Your task to perform on an android device: open app "Google Keep" (install if not already installed) Image 0: 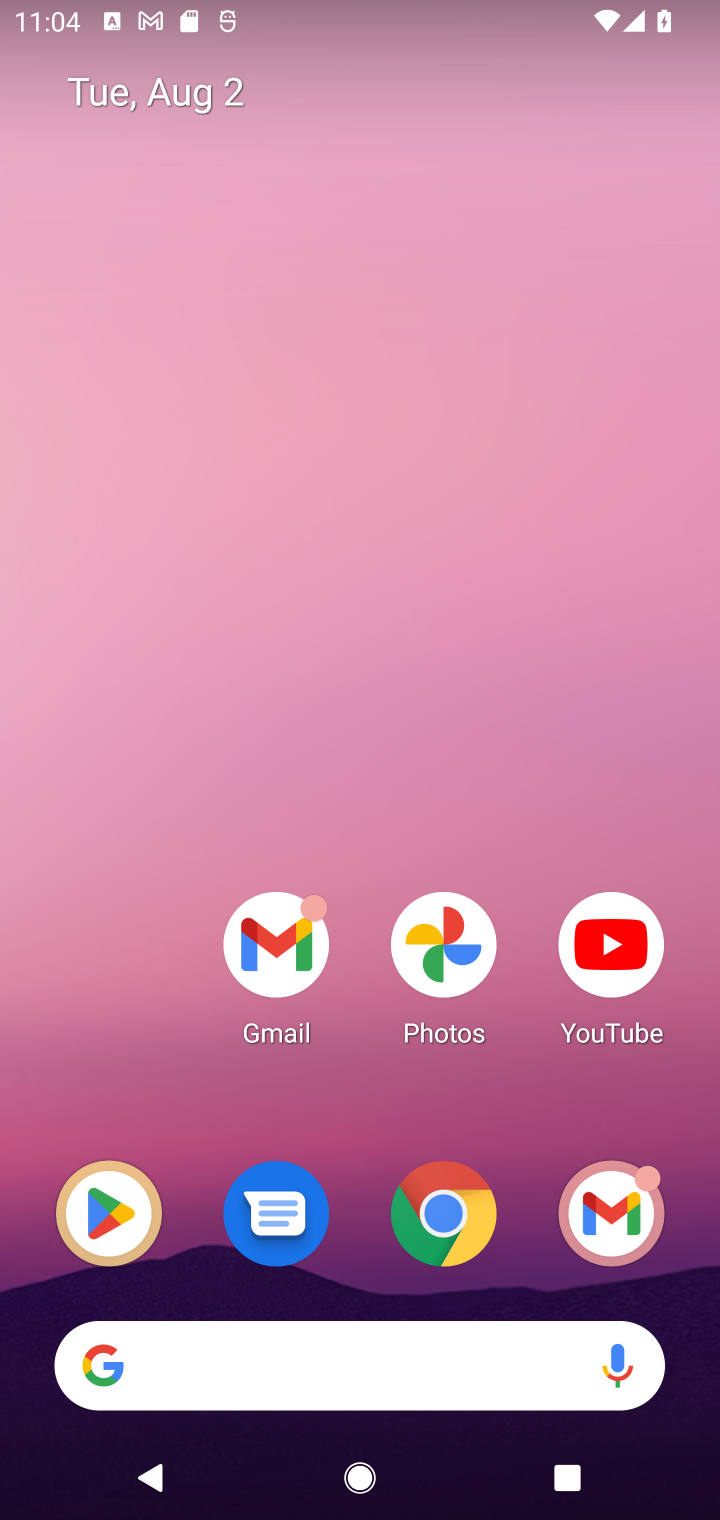
Step 0: click (116, 1214)
Your task to perform on an android device: open app "Google Keep" (install if not already installed) Image 1: 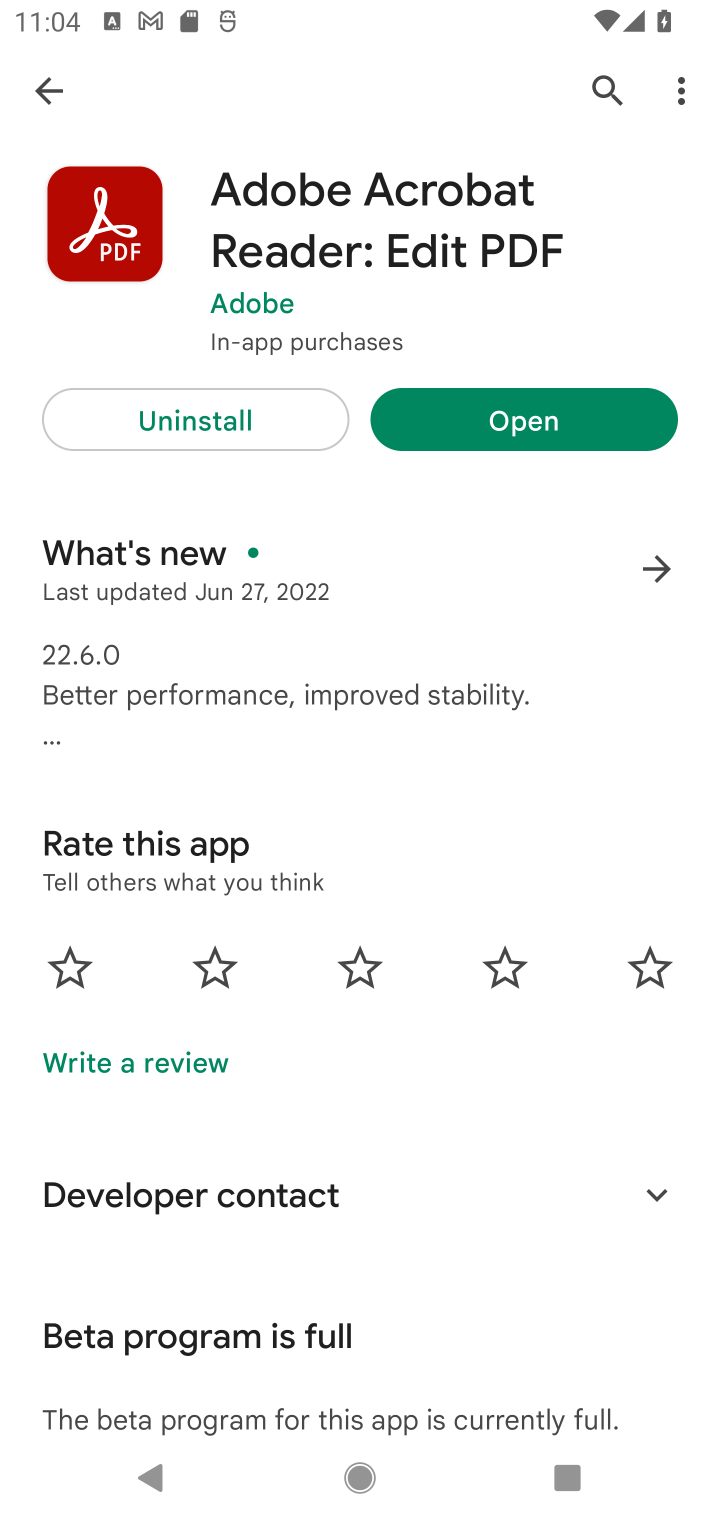
Step 1: click (48, 83)
Your task to perform on an android device: open app "Google Keep" (install if not already installed) Image 2: 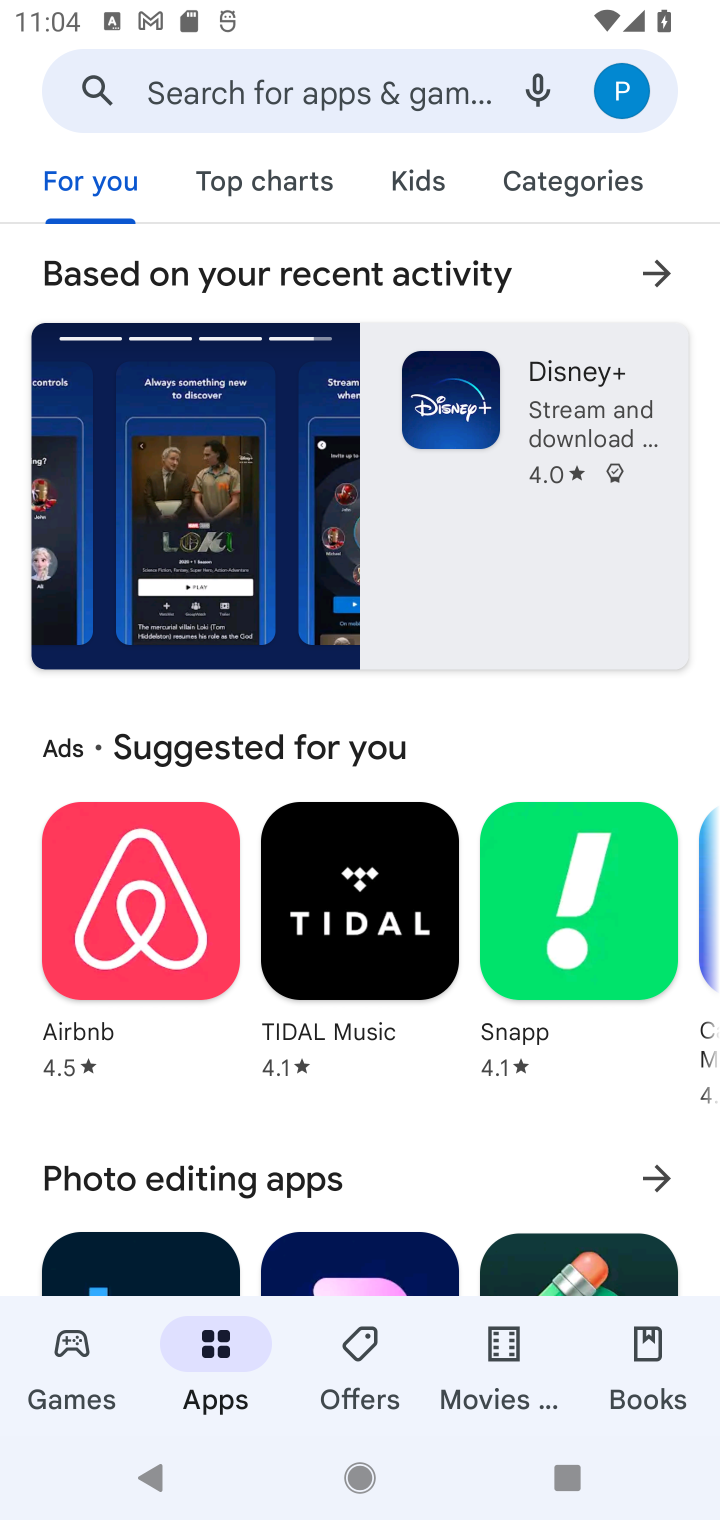
Step 2: click (286, 97)
Your task to perform on an android device: open app "Google Keep" (install if not already installed) Image 3: 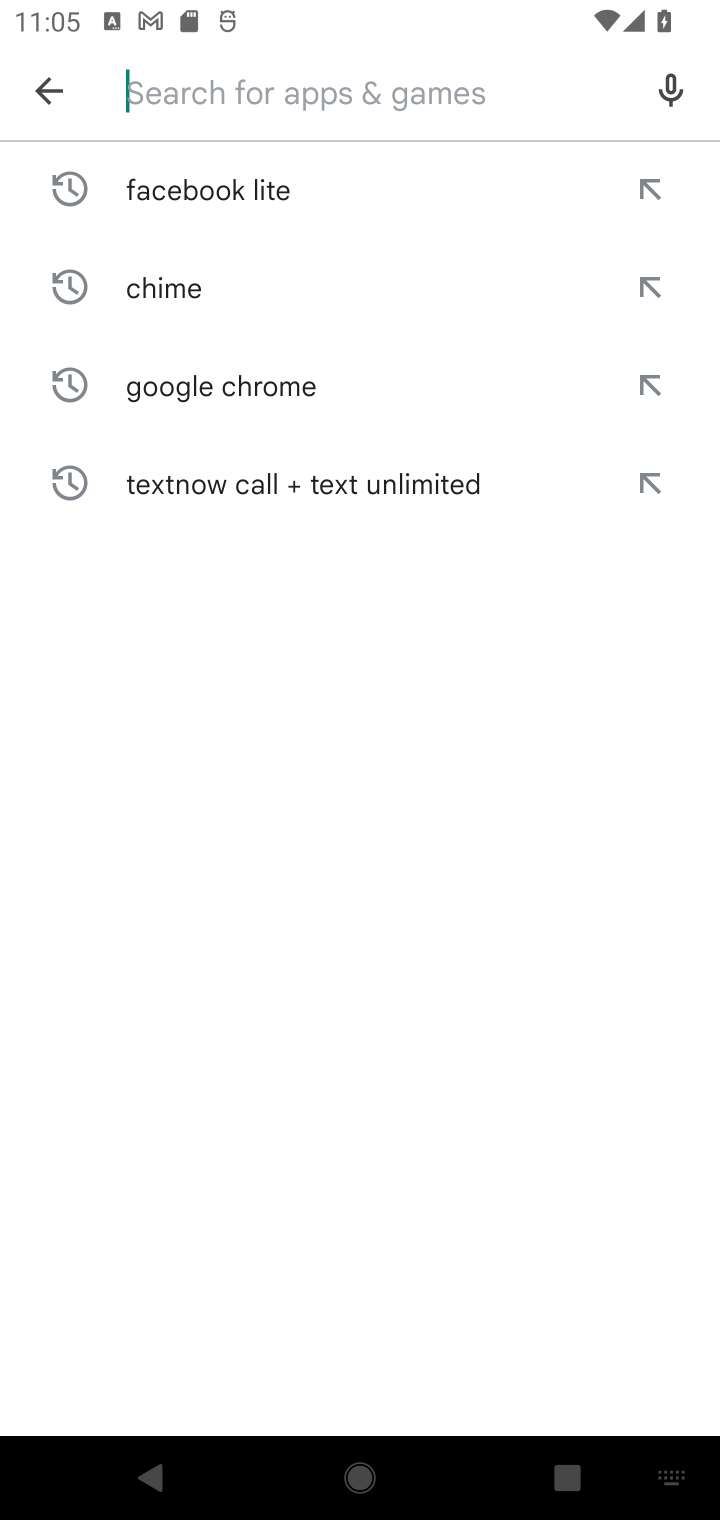
Step 3: type "Google Keep"
Your task to perform on an android device: open app "Google Keep" (install if not already installed) Image 4: 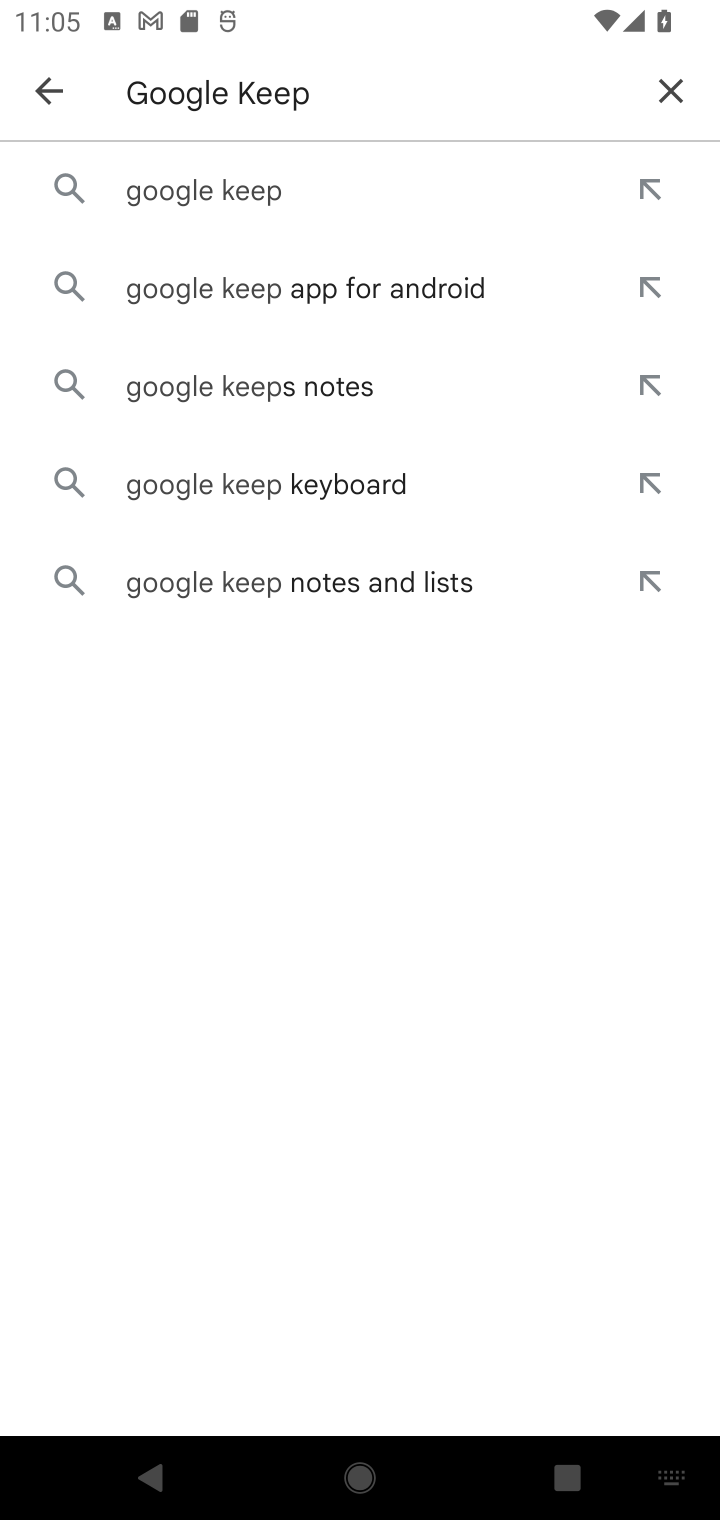
Step 4: click (173, 182)
Your task to perform on an android device: open app "Google Keep" (install if not already installed) Image 5: 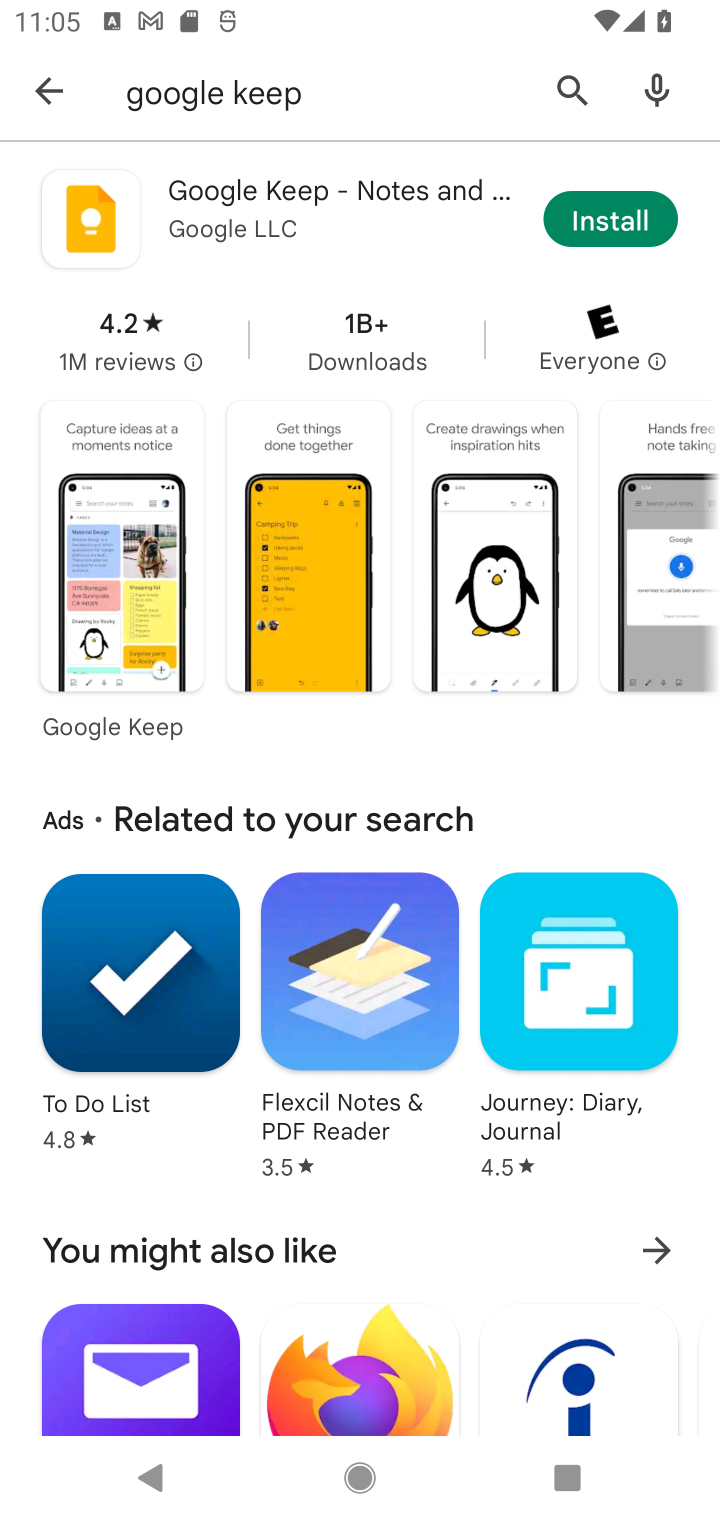
Step 5: click (605, 212)
Your task to perform on an android device: open app "Google Keep" (install if not already installed) Image 6: 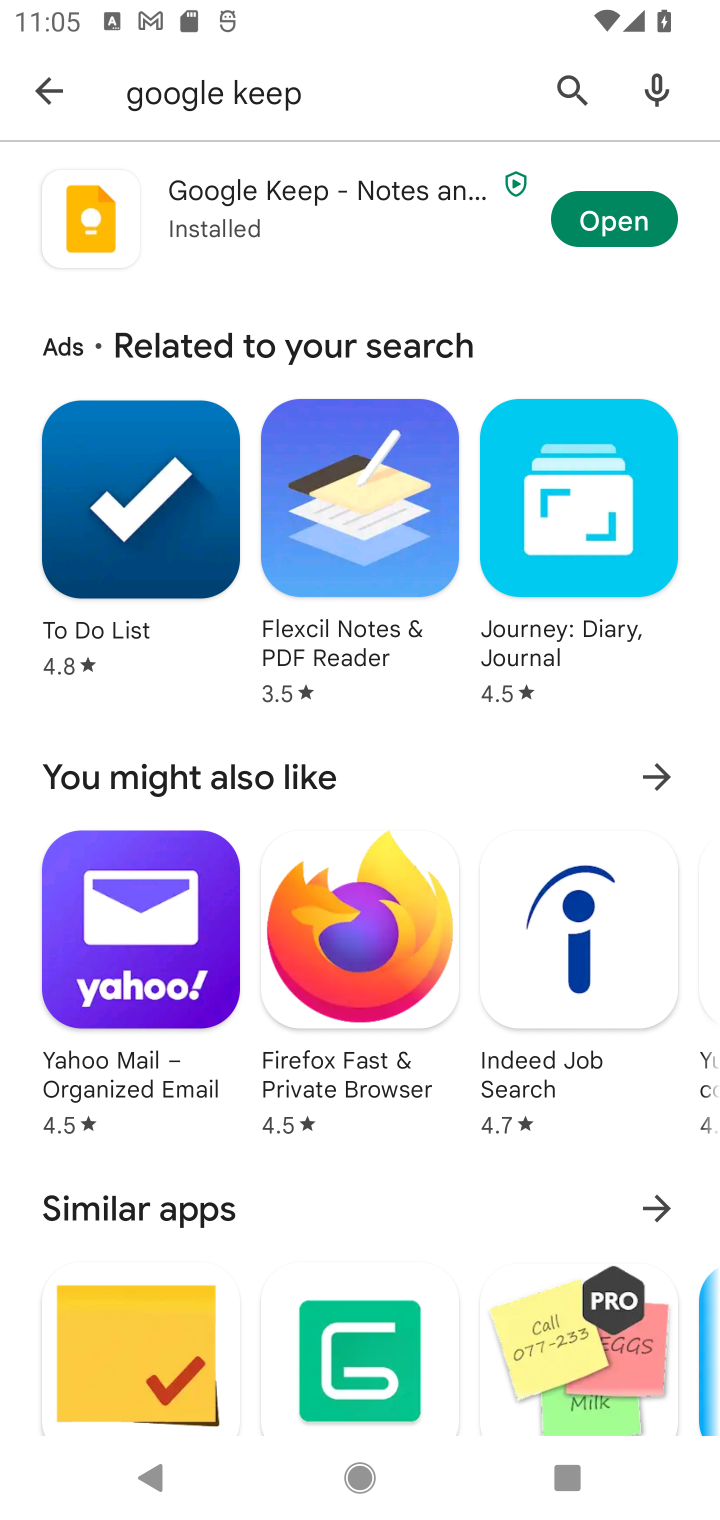
Step 6: click (605, 212)
Your task to perform on an android device: open app "Google Keep" (install if not already installed) Image 7: 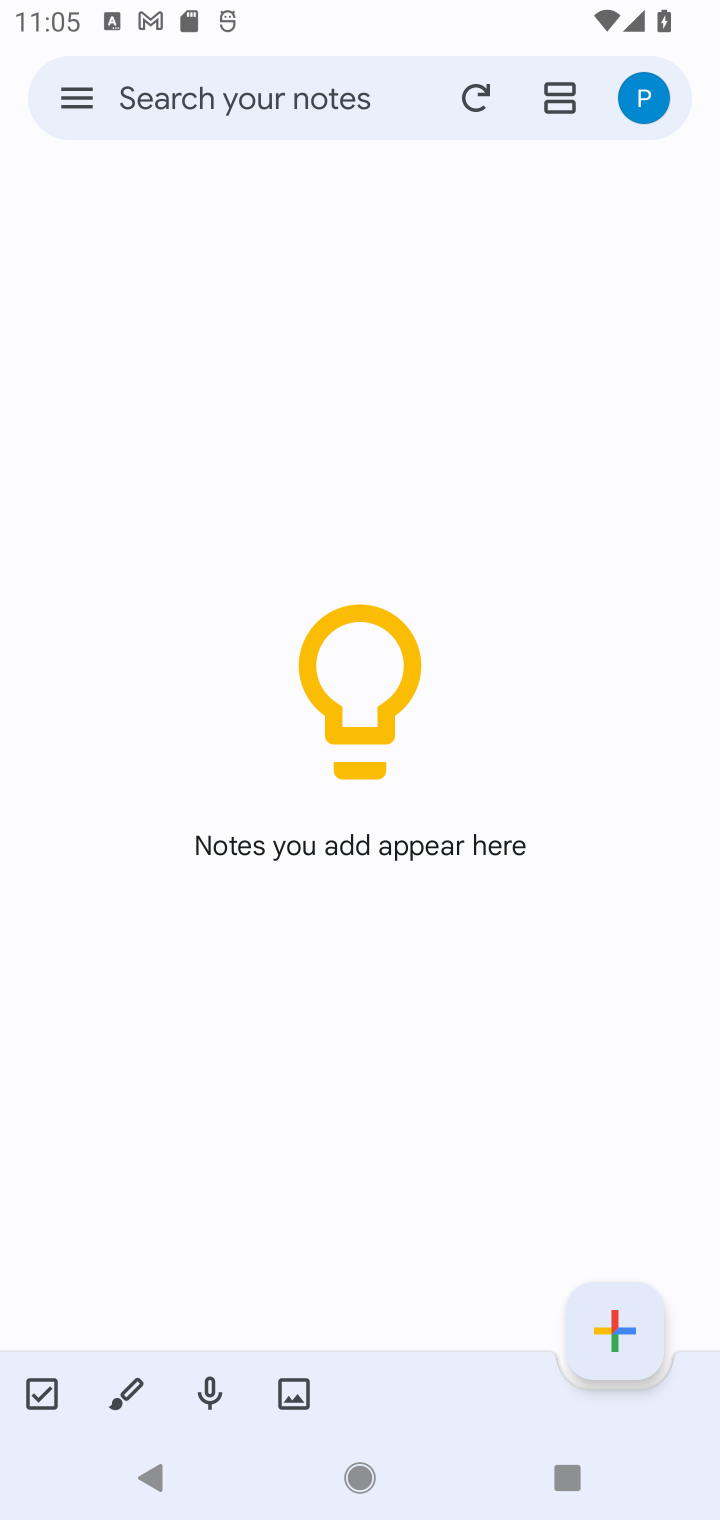
Step 7: task complete